Your task to perform on an android device: change notifications settings Image 0: 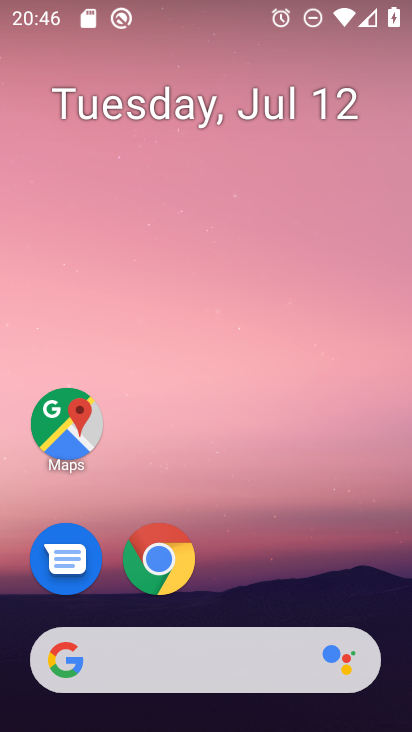
Step 0: drag from (341, 591) to (381, 109)
Your task to perform on an android device: change notifications settings Image 1: 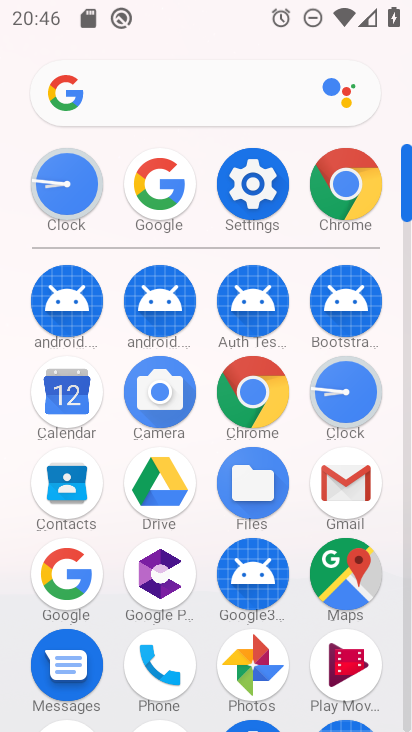
Step 1: click (265, 200)
Your task to perform on an android device: change notifications settings Image 2: 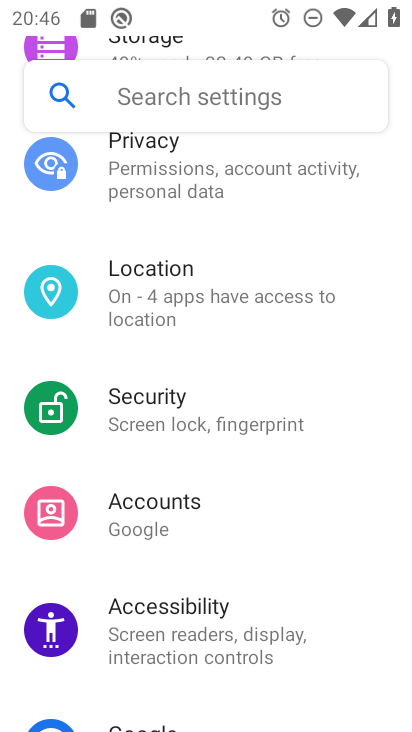
Step 2: drag from (353, 267) to (351, 350)
Your task to perform on an android device: change notifications settings Image 3: 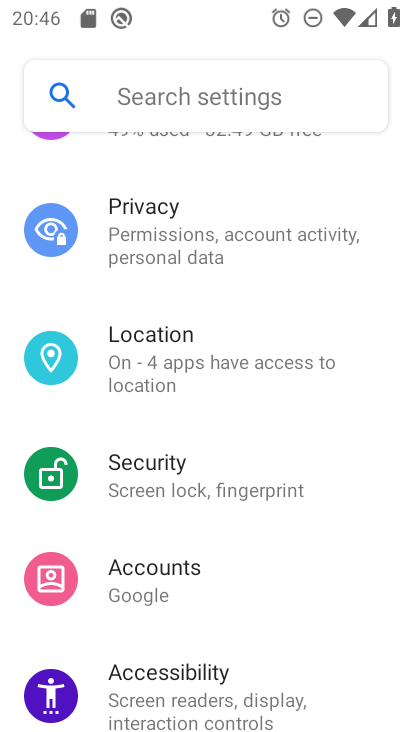
Step 3: drag from (366, 253) to (374, 386)
Your task to perform on an android device: change notifications settings Image 4: 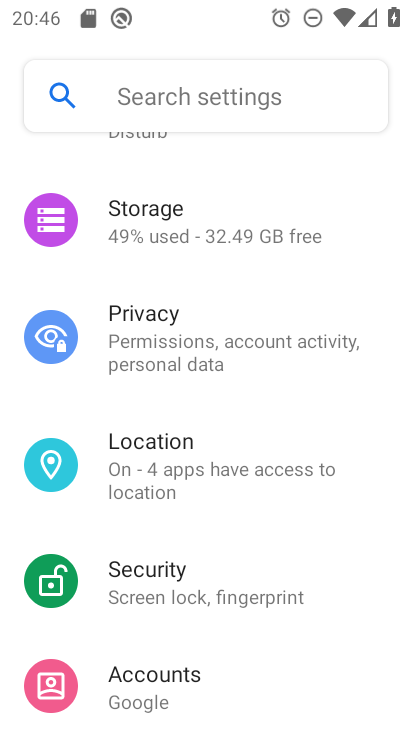
Step 4: drag from (384, 218) to (387, 403)
Your task to perform on an android device: change notifications settings Image 5: 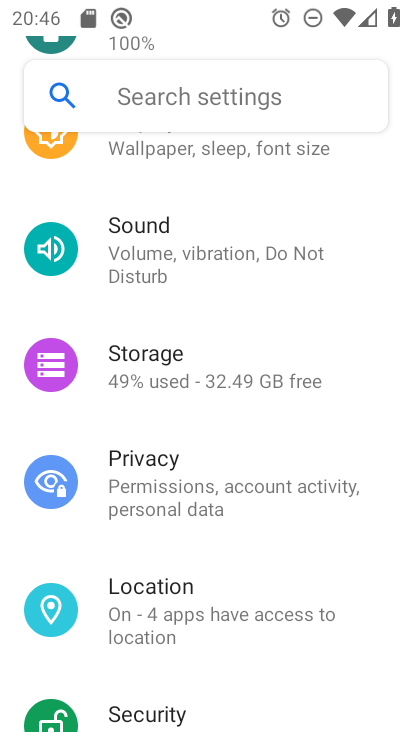
Step 5: drag from (375, 252) to (368, 371)
Your task to perform on an android device: change notifications settings Image 6: 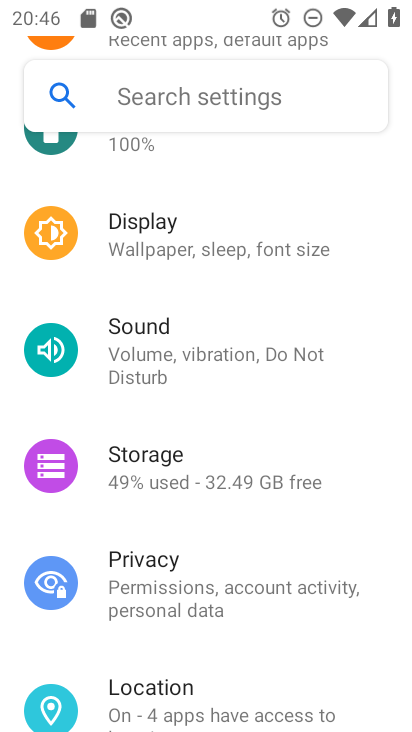
Step 6: drag from (381, 189) to (367, 325)
Your task to perform on an android device: change notifications settings Image 7: 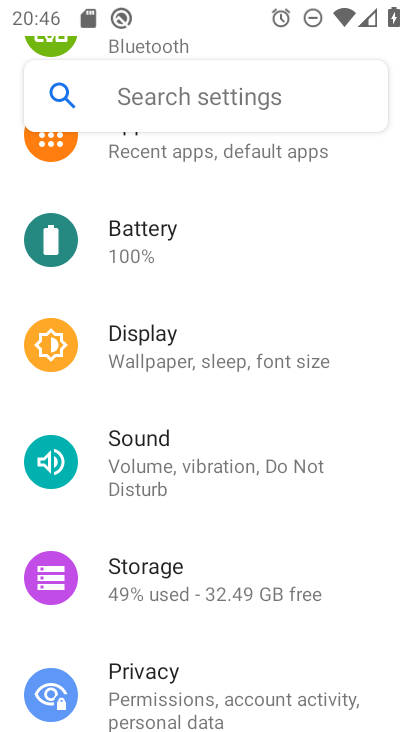
Step 7: drag from (367, 199) to (350, 351)
Your task to perform on an android device: change notifications settings Image 8: 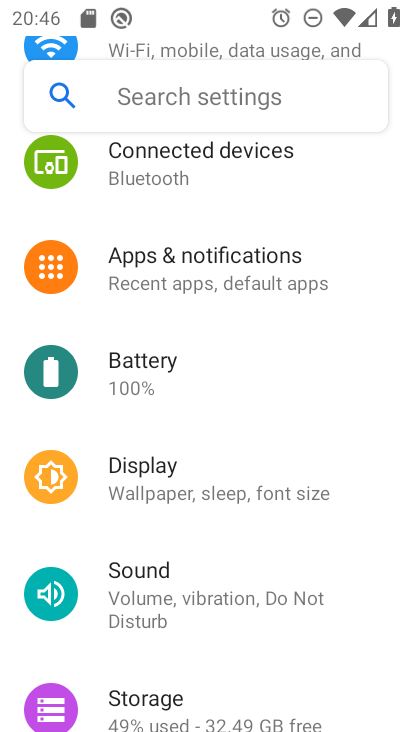
Step 8: drag from (361, 197) to (349, 321)
Your task to perform on an android device: change notifications settings Image 9: 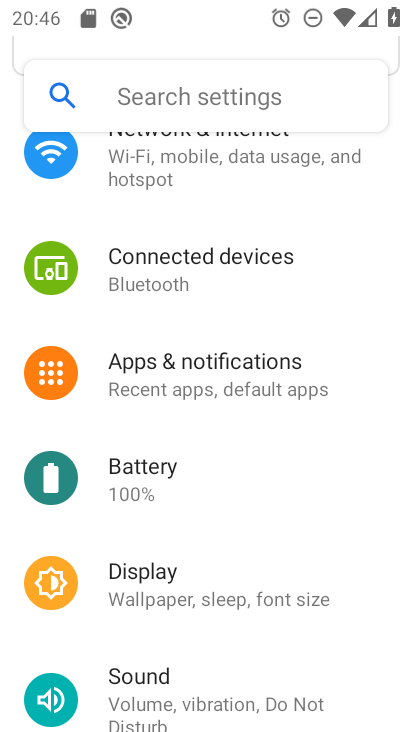
Step 9: drag from (357, 200) to (349, 343)
Your task to perform on an android device: change notifications settings Image 10: 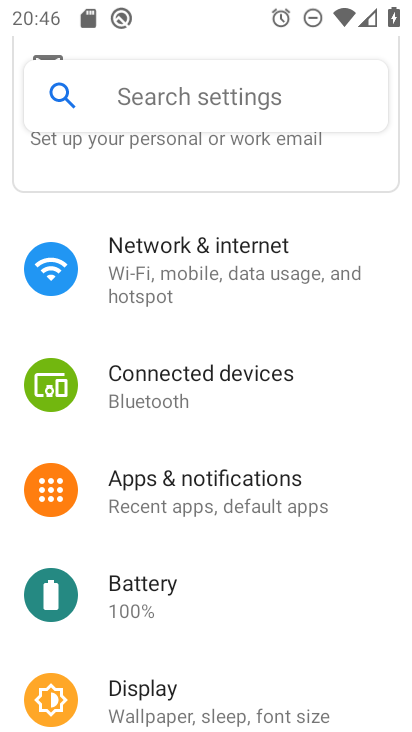
Step 10: click (236, 499)
Your task to perform on an android device: change notifications settings Image 11: 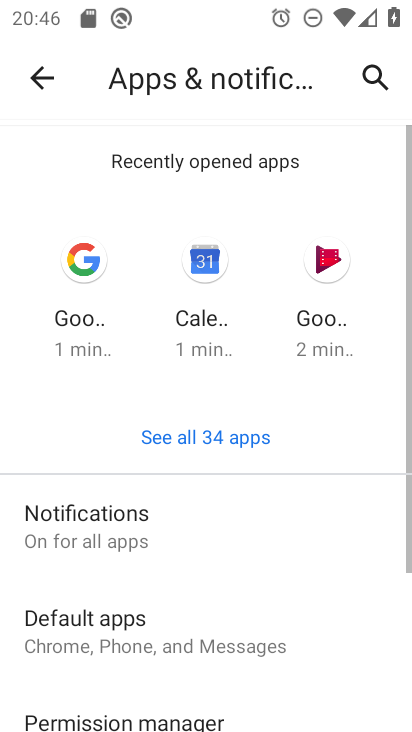
Step 11: click (153, 538)
Your task to perform on an android device: change notifications settings Image 12: 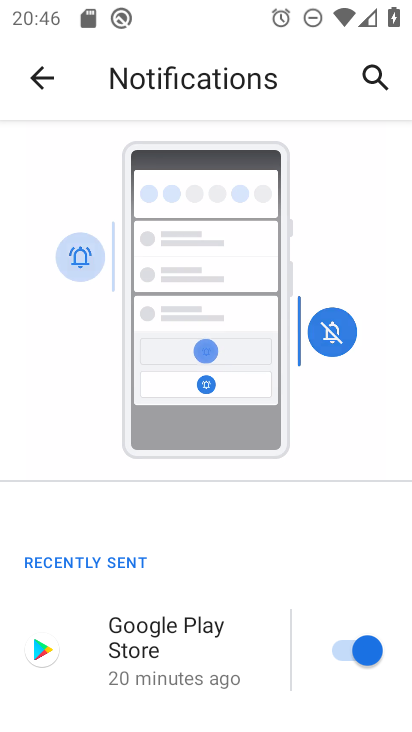
Step 12: drag from (305, 543) to (308, 368)
Your task to perform on an android device: change notifications settings Image 13: 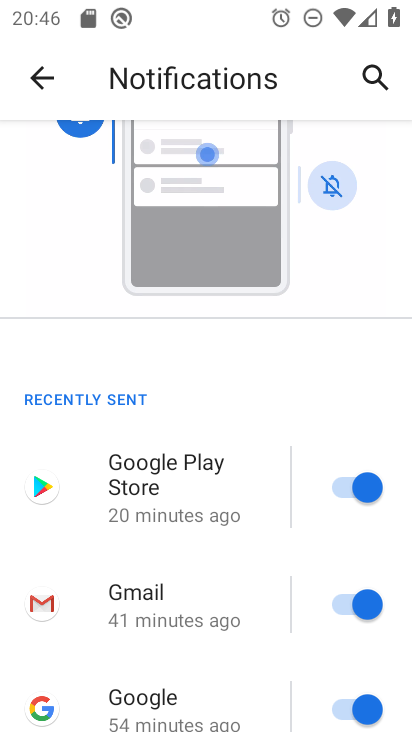
Step 13: drag from (310, 523) to (308, 298)
Your task to perform on an android device: change notifications settings Image 14: 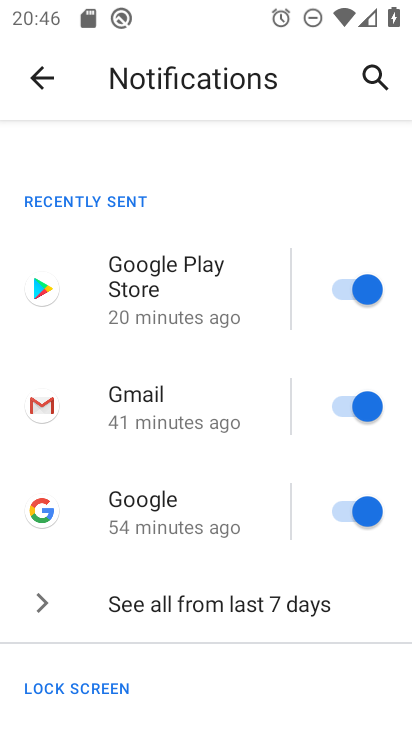
Step 14: drag from (211, 501) to (223, 201)
Your task to perform on an android device: change notifications settings Image 15: 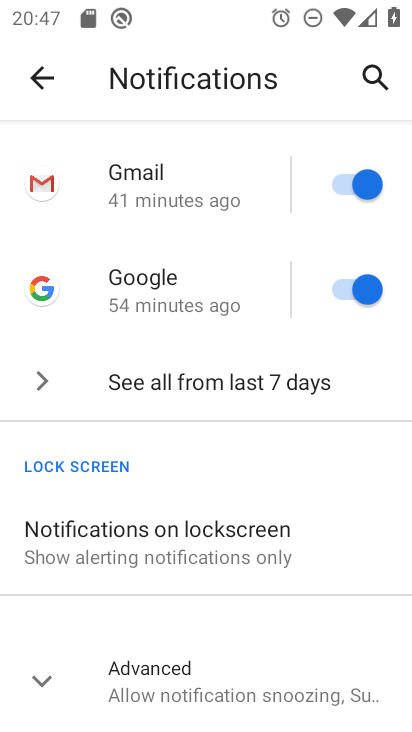
Step 15: drag from (259, 245) to (265, 483)
Your task to perform on an android device: change notifications settings Image 16: 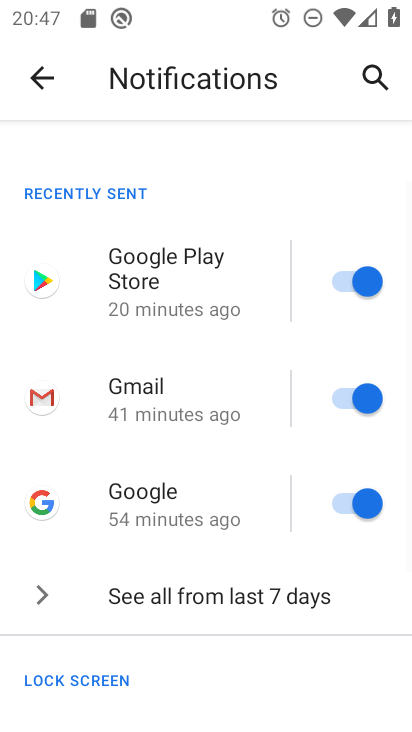
Step 16: click (355, 275)
Your task to perform on an android device: change notifications settings Image 17: 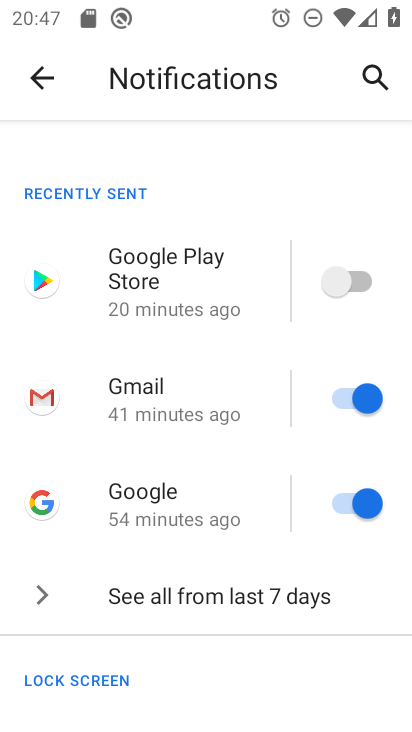
Step 17: click (362, 401)
Your task to perform on an android device: change notifications settings Image 18: 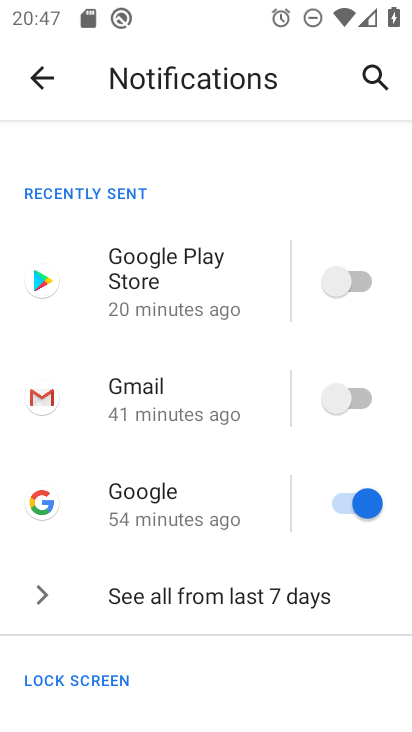
Step 18: click (369, 506)
Your task to perform on an android device: change notifications settings Image 19: 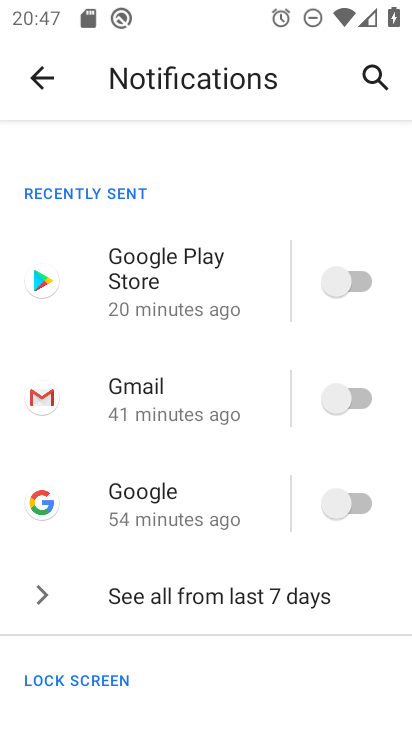
Step 19: task complete